Your task to perform on an android device: add a contact in the contacts app Image 0: 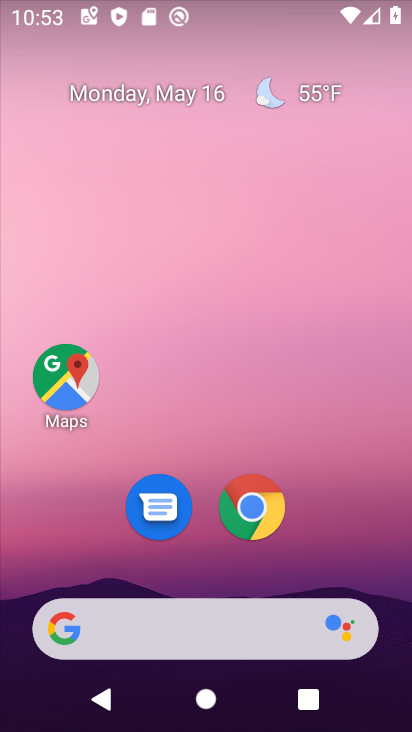
Step 0: drag from (283, 563) to (296, 138)
Your task to perform on an android device: add a contact in the contacts app Image 1: 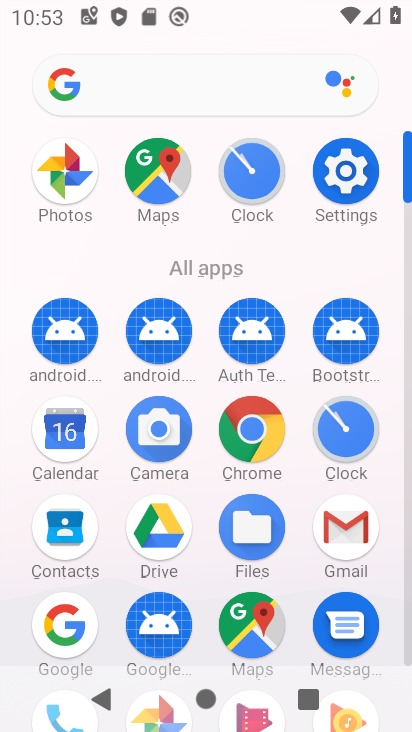
Step 1: click (70, 545)
Your task to perform on an android device: add a contact in the contacts app Image 2: 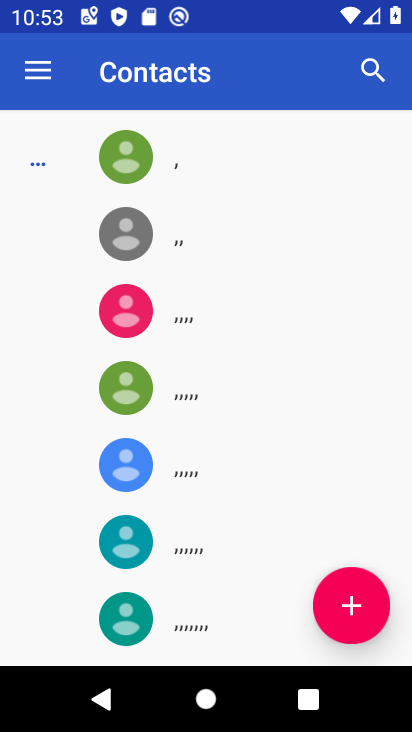
Step 2: click (361, 600)
Your task to perform on an android device: add a contact in the contacts app Image 3: 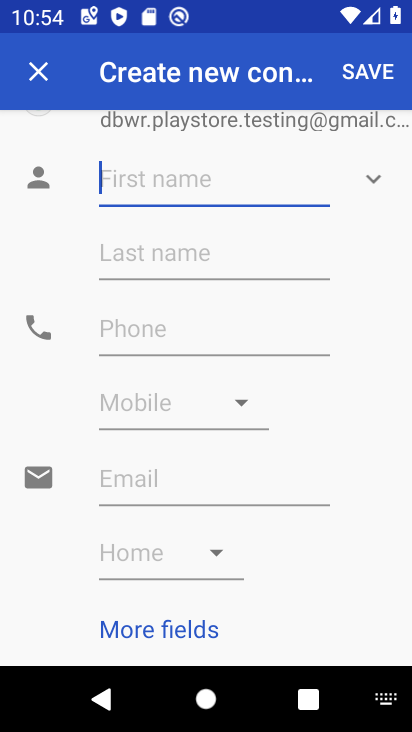
Step 3: click (346, 328)
Your task to perform on an android device: add a contact in the contacts app Image 4: 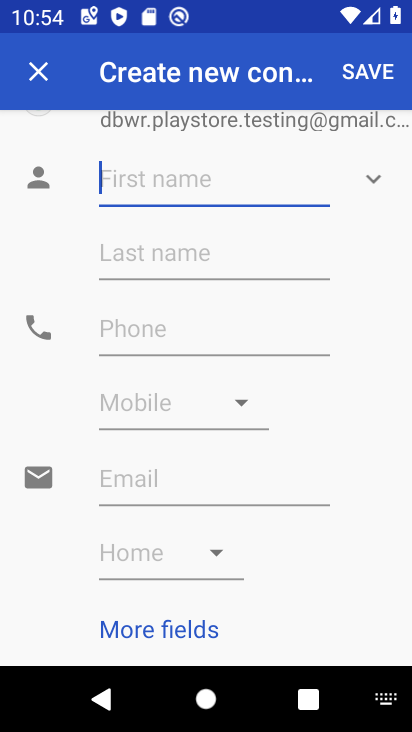
Step 4: type "Ghiya"
Your task to perform on an android device: add a contact in the contacts app Image 5: 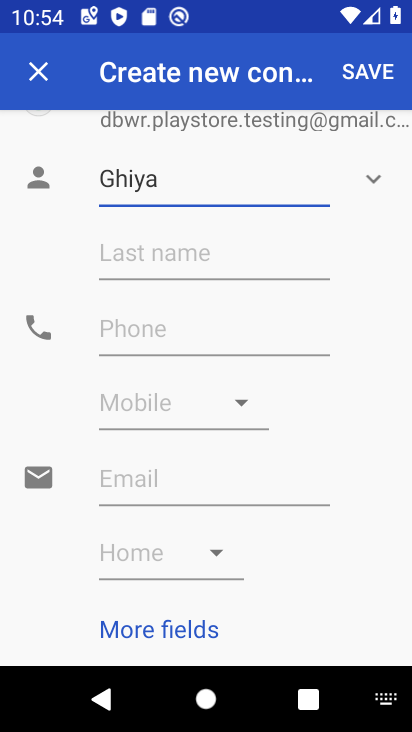
Step 5: click (161, 335)
Your task to perform on an android device: add a contact in the contacts app Image 6: 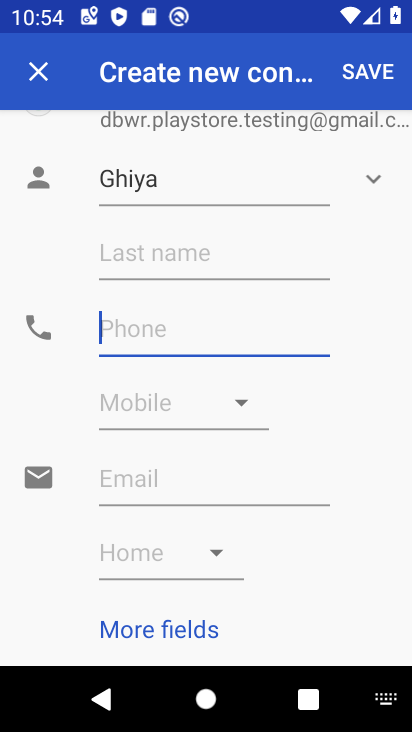
Step 6: type "879996576554"
Your task to perform on an android device: add a contact in the contacts app Image 7: 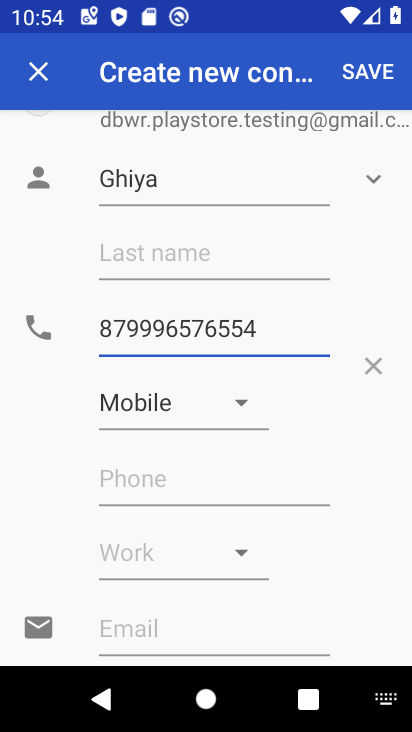
Step 7: click (380, 67)
Your task to perform on an android device: add a contact in the contacts app Image 8: 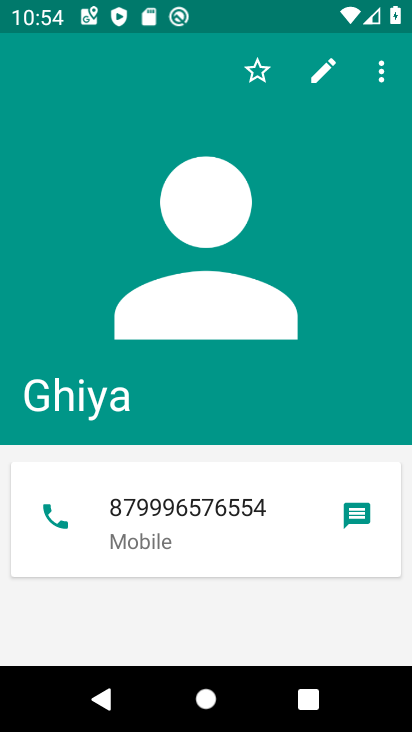
Step 8: task complete